Your task to perform on an android device: Go to network settings Image 0: 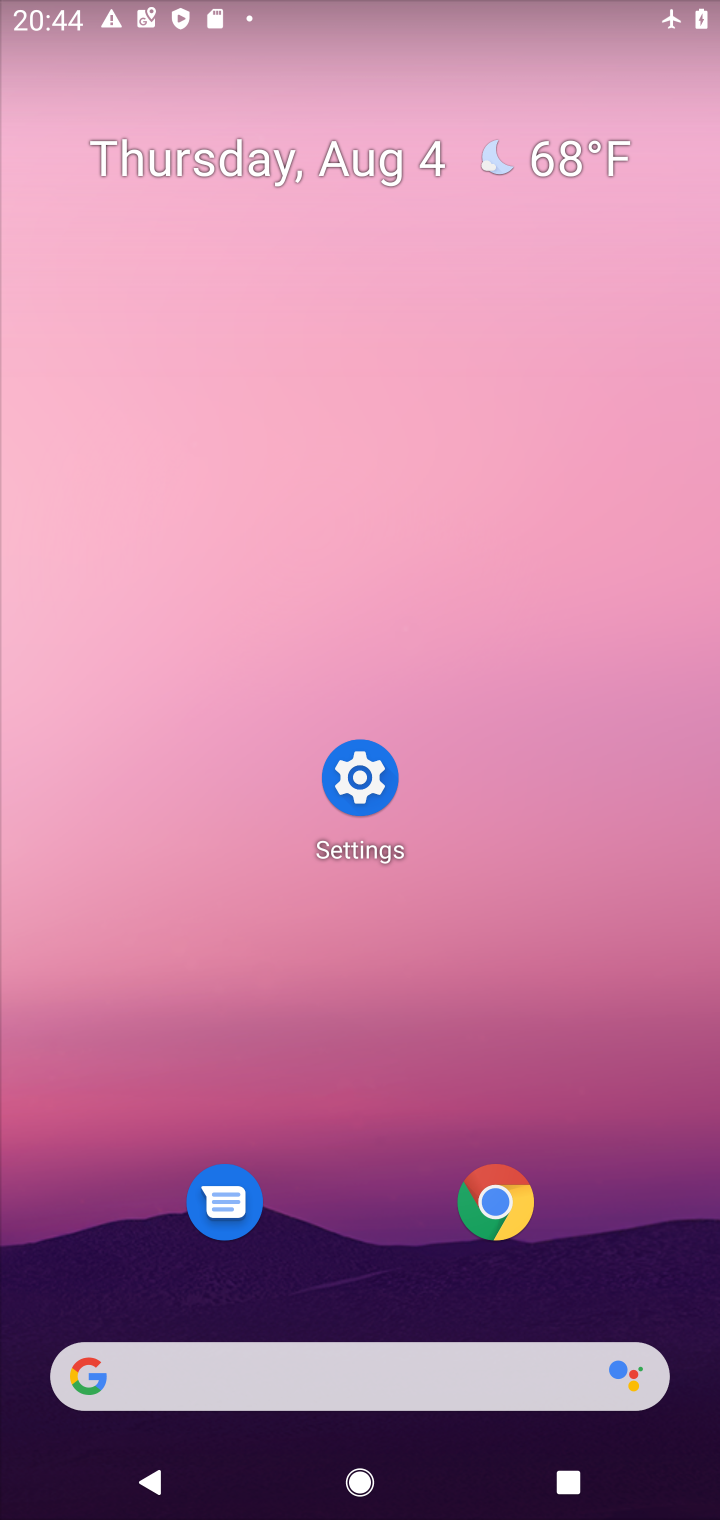
Step 0: drag from (382, 1114) to (338, 360)
Your task to perform on an android device: Go to network settings Image 1: 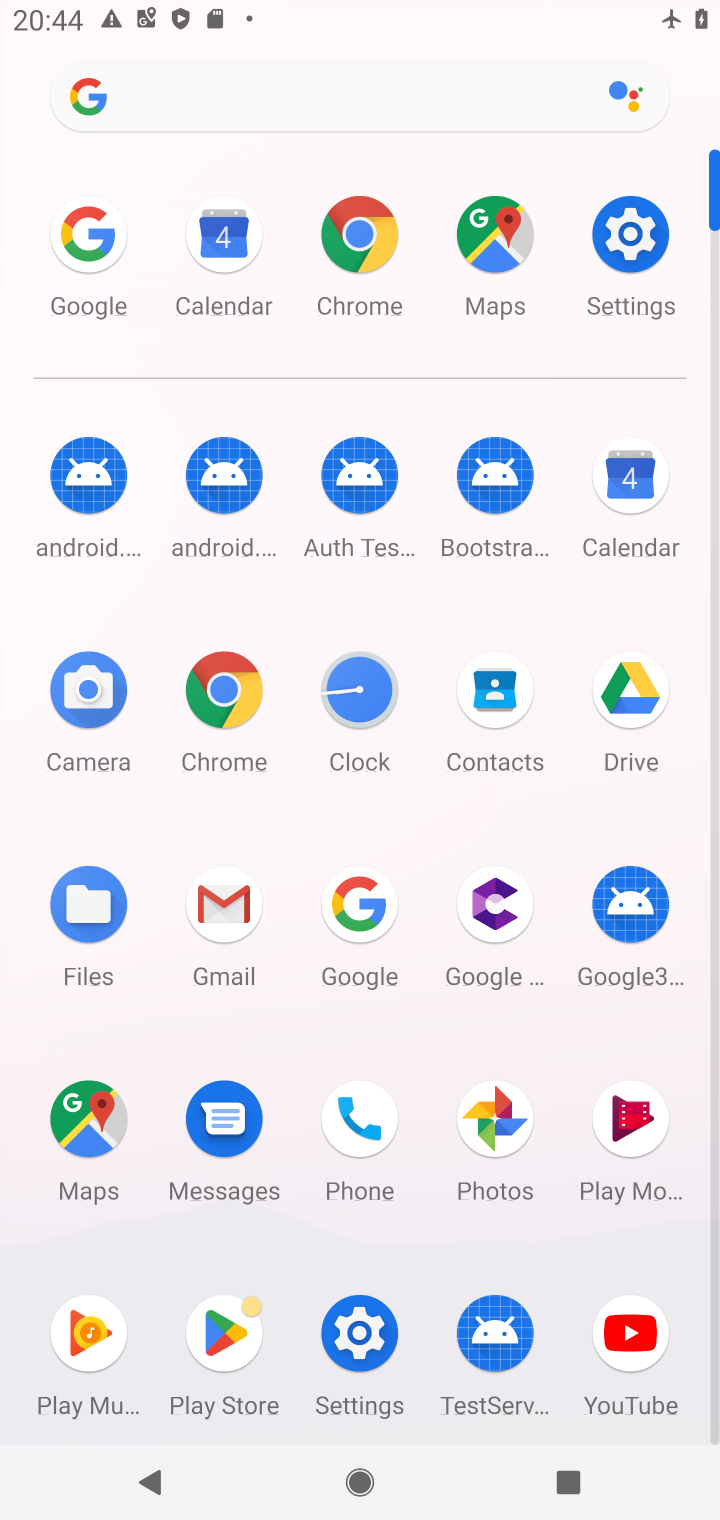
Step 1: click (656, 256)
Your task to perform on an android device: Go to network settings Image 2: 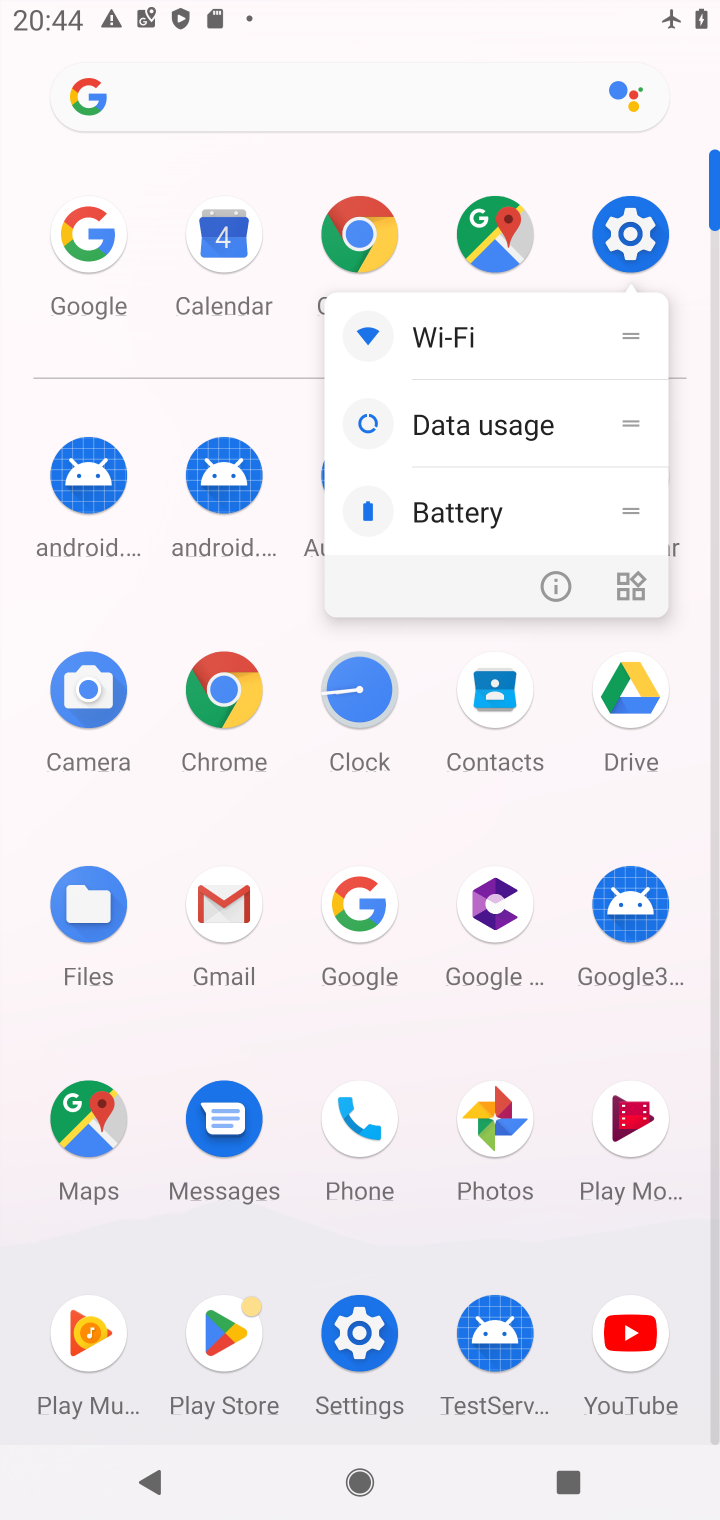
Step 2: click (635, 237)
Your task to perform on an android device: Go to network settings Image 3: 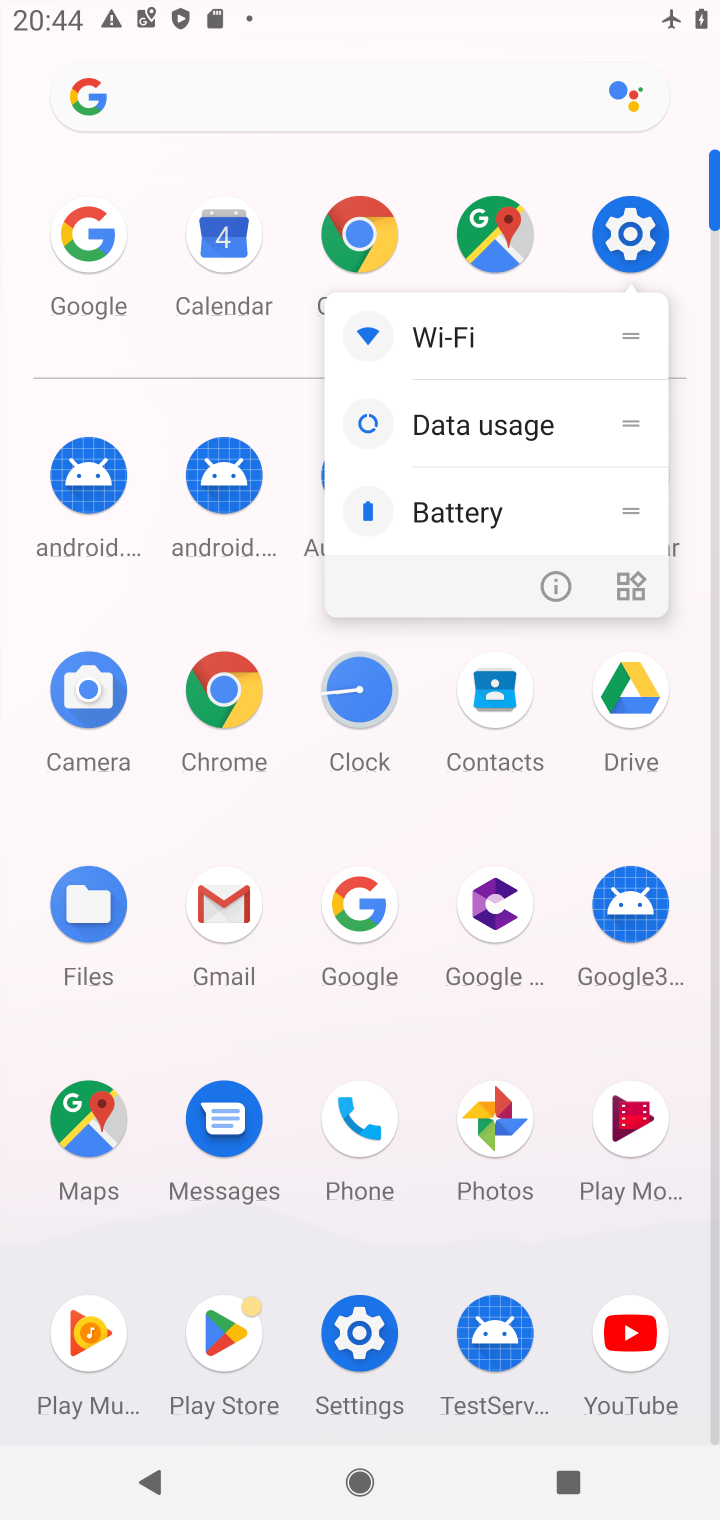
Step 3: click (643, 216)
Your task to perform on an android device: Go to network settings Image 4: 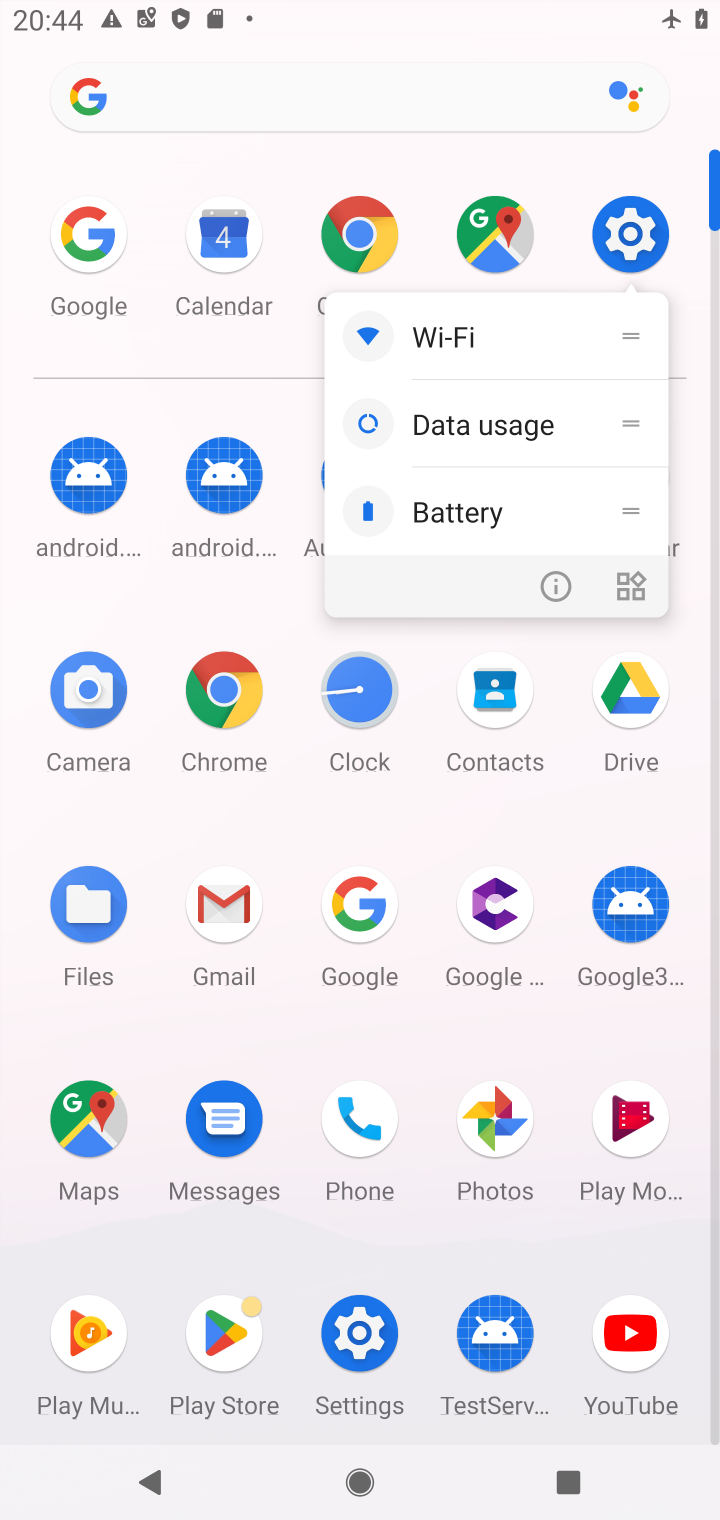
Step 4: click (618, 224)
Your task to perform on an android device: Go to network settings Image 5: 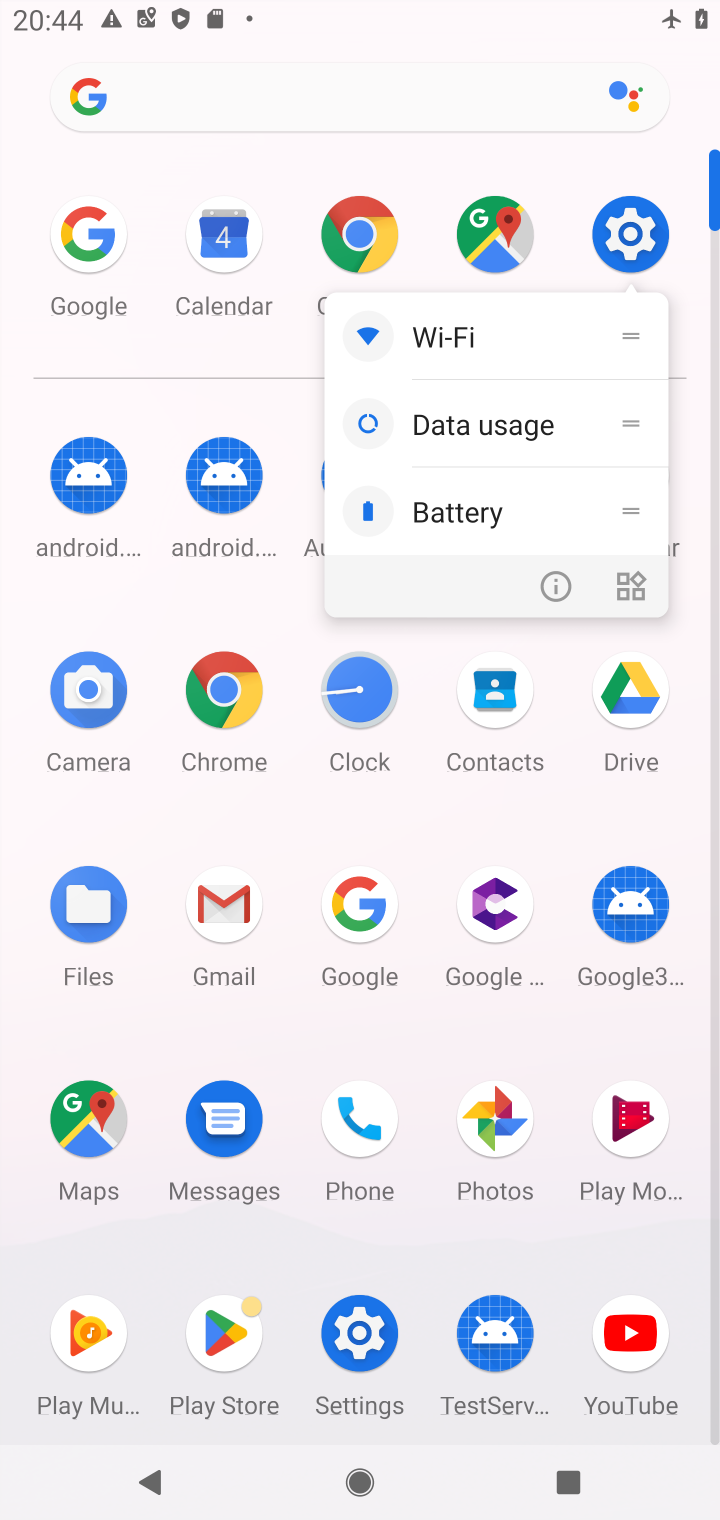
Step 5: click (627, 232)
Your task to perform on an android device: Go to network settings Image 6: 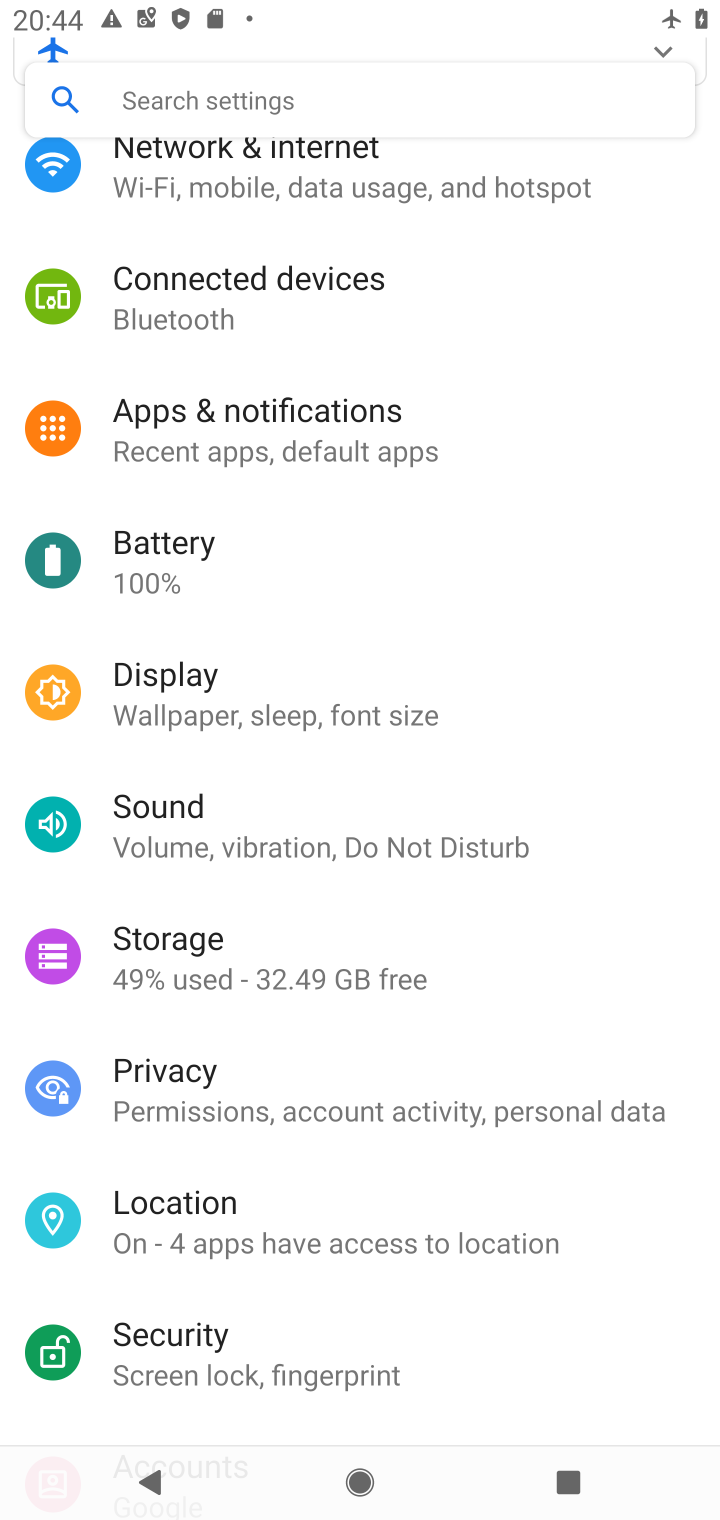
Step 6: click (274, 202)
Your task to perform on an android device: Go to network settings Image 7: 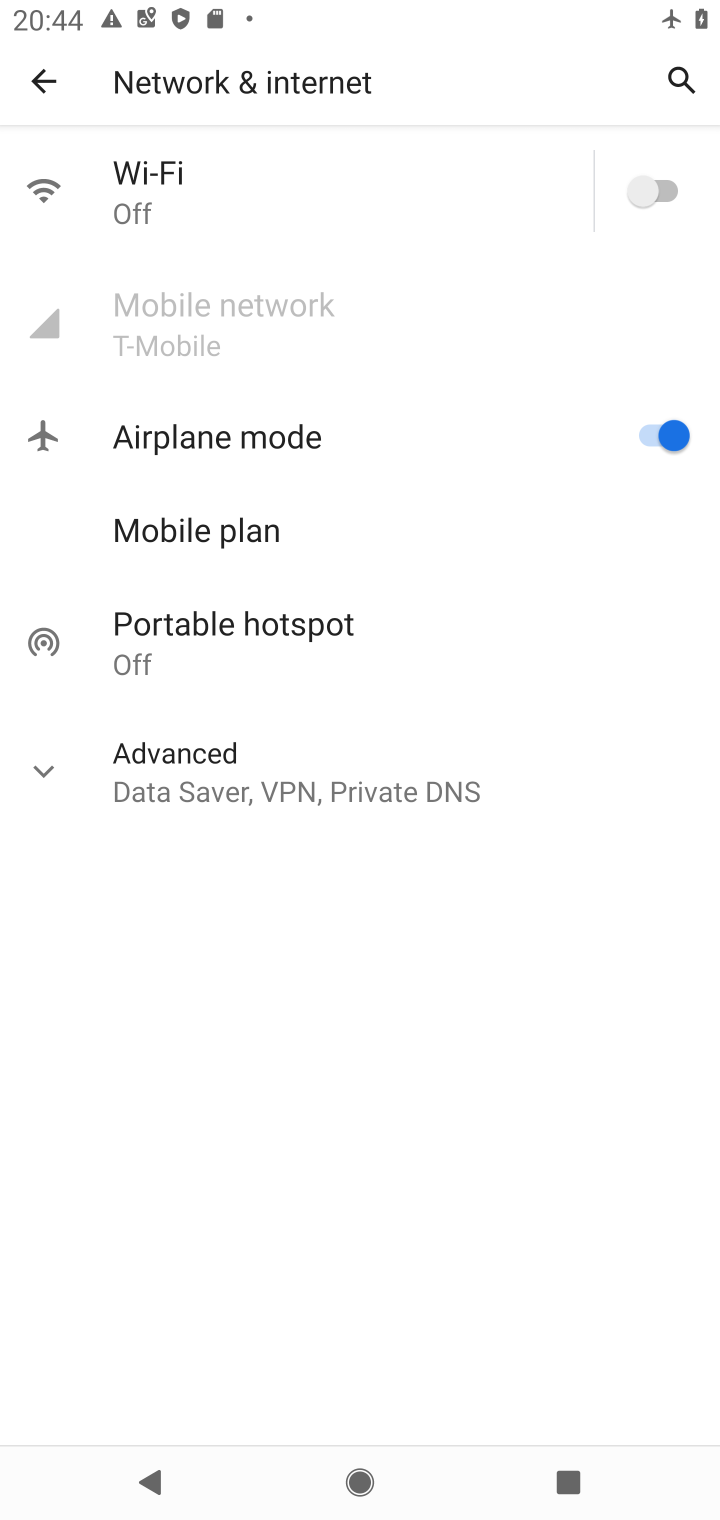
Step 7: task complete